Your task to perform on an android device: toggle location history Image 0: 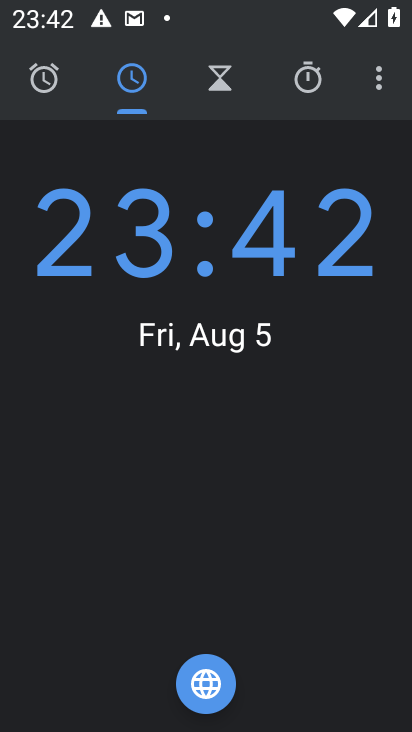
Step 0: press home button
Your task to perform on an android device: toggle location history Image 1: 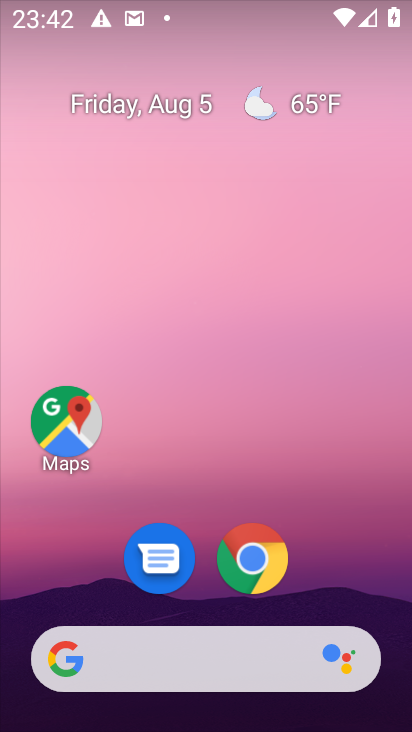
Step 1: drag from (370, 581) to (373, 233)
Your task to perform on an android device: toggle location history Image 2: 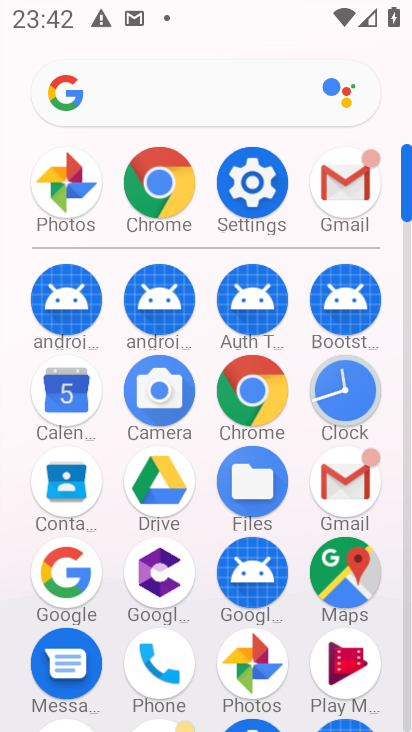
Step 2: click (254, 186)
Your task to perform on an android device: toggle location history Image 3: 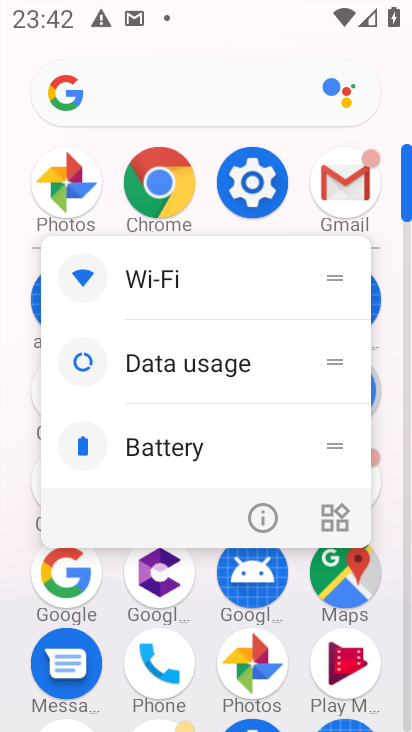
Step 3: click (253, 185)
Your task to perform on an android device: toggle location history Image 4: 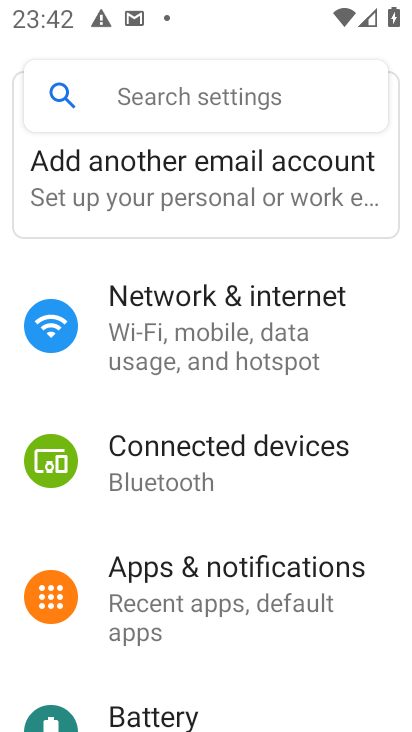
Step 4: drag from (369, 423) to (370, 321)
Your task to perform on an android device: toggle location history Image 5: 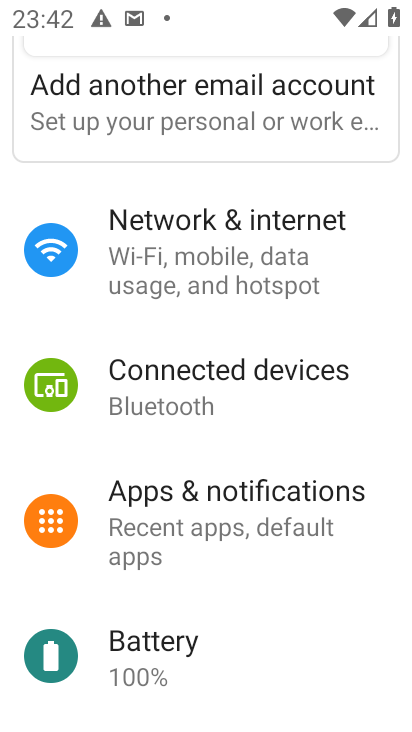
Step 5: drag from (375, 458) to (388, 320)
Your task to perform on an android device: toggle location history Image 6: 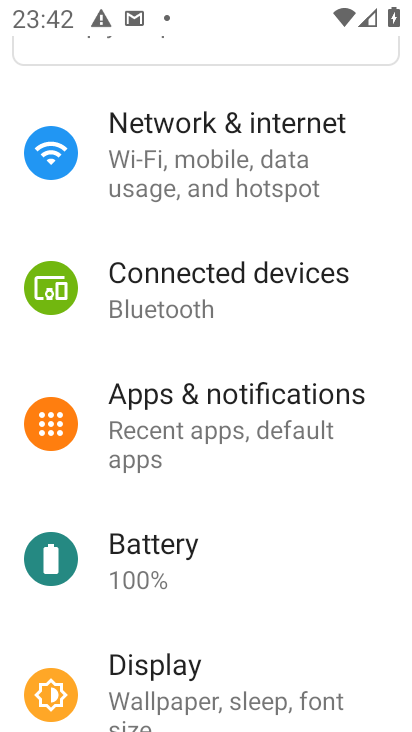
Step 6: drag from (373, 462) to (368, 334)
Your task to perform on an android device: toggle location history Image 7: 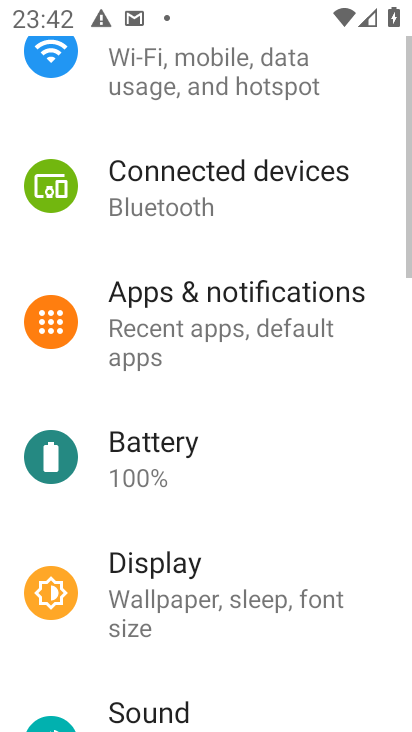
Step 7: drag from (357, 468) to (354, 358)
Your task to perform on an android device: toggle location history Image 8: 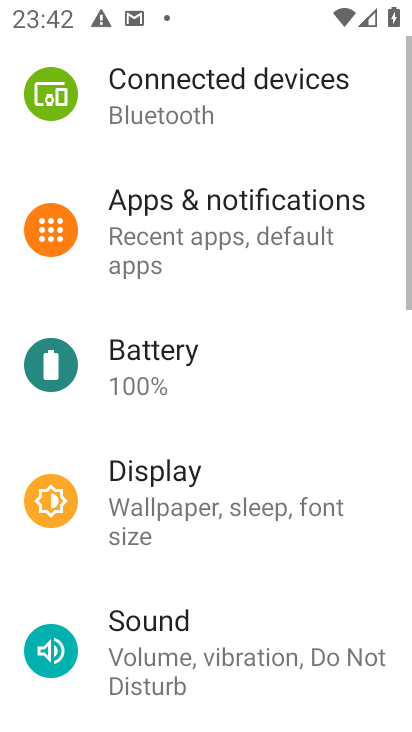
Step 8: drag from (346, 488) to (336, 349)
Your task to perform on an android device: toggle location history Image 9: 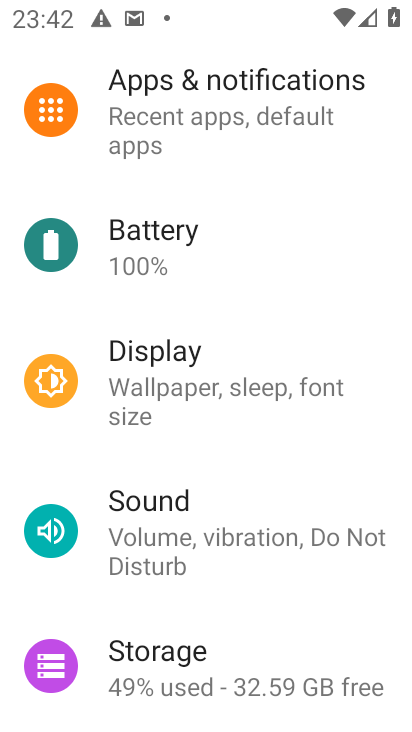
Step 9: drag from (314, 520) to (308, 361)
Your task to perform on an android device: toggle location history Image 10: 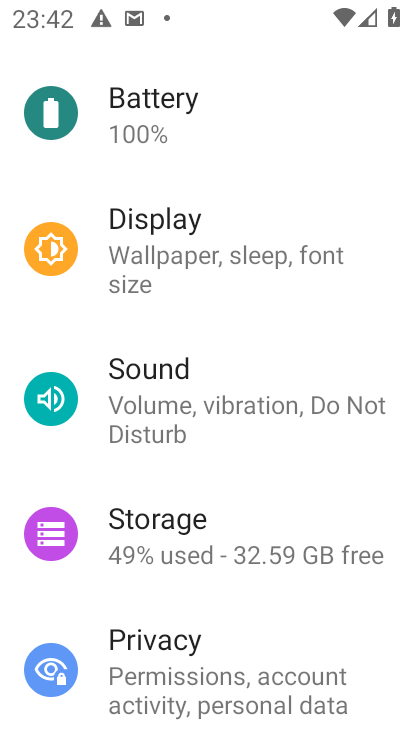
Step 10: drag from (309, 523) to (325, 318)
Your task to perform on an android device: toggle location history Image 11: 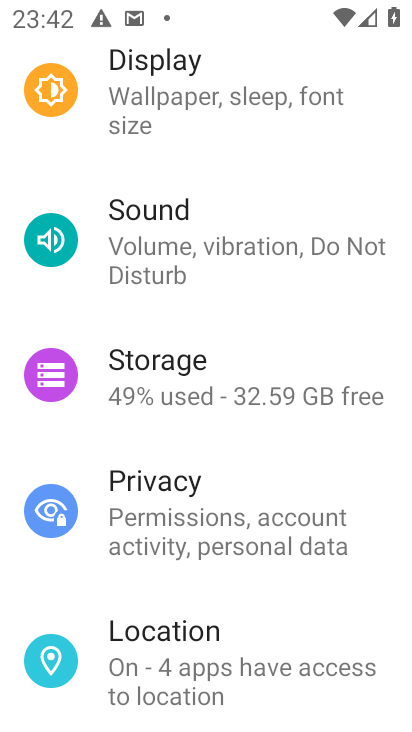
Step 11: drag from (331, 583) to (329, 414)
Your task to perform on an android device: toggle location history Image 12: 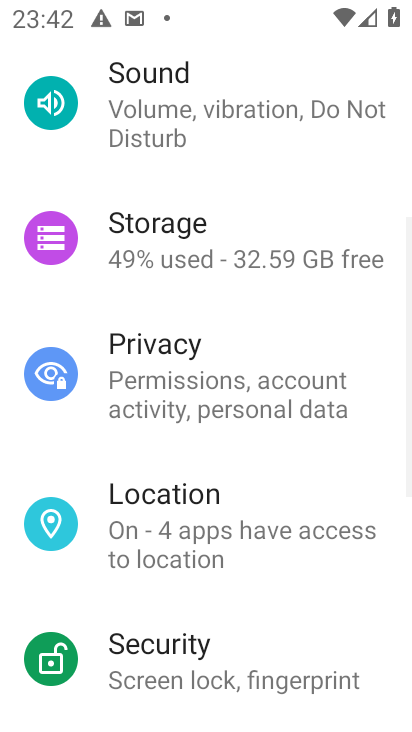
Step 12: click (300, 514)
Your task to perform on an android device: toggle location history Image 13: 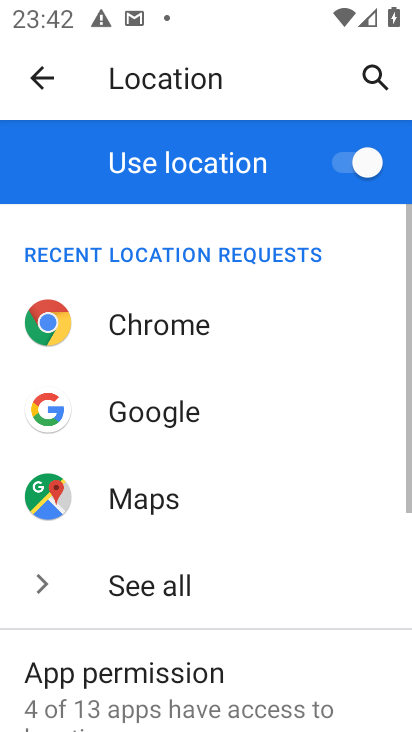
Step 13: drag from (318, 591) to (309, 437)
Your task to perform on an android device: toggle location history Image 14: 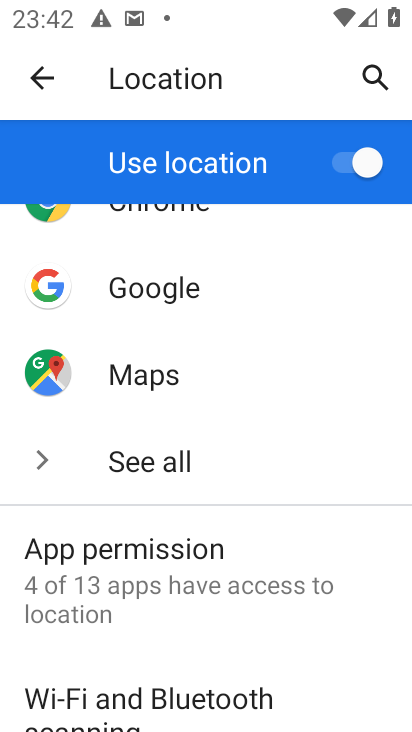
Step 14: drag from (282, 656) to (307, 385)
Your task to perform on an android device: toggle location history Image 15: 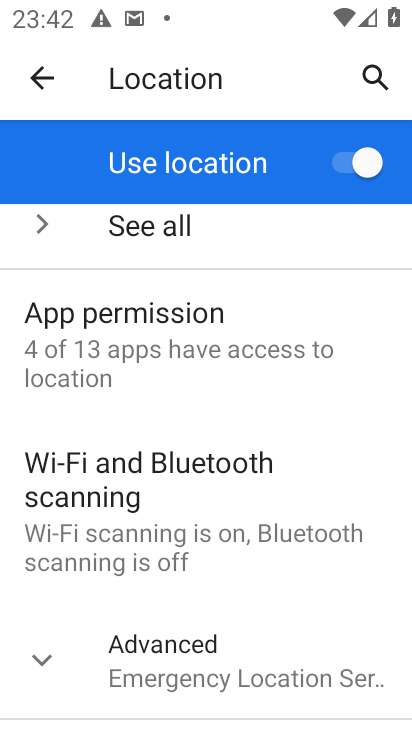
Step 15: click (290, 663)
Your task to perform on an android device: toggle location history Image 16: 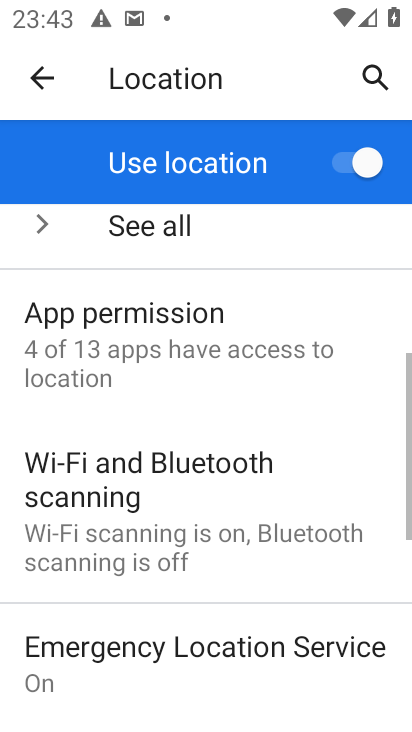
Step 16: drag from (290, 649) to (292, 497)
Your task to perform on an android device: toggle location history Image 17: 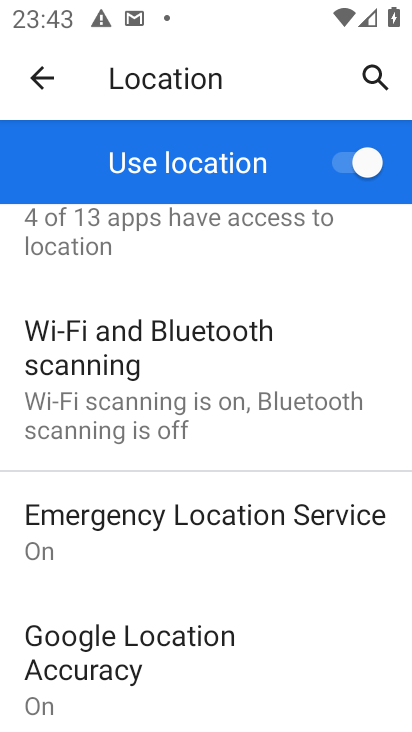
Step 17: drag from (310, 679) to (328, 467)
Your task to perform on an android device: toggle location history Image 18: 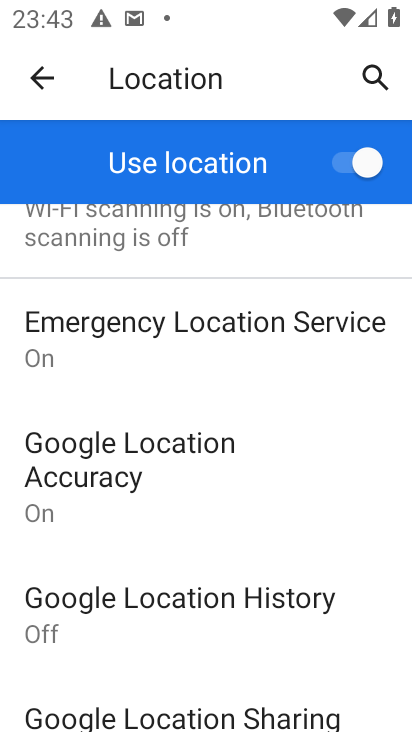
Step 18: click (297, 616)
Your task to perform on an android device: toggle location history Image 19: 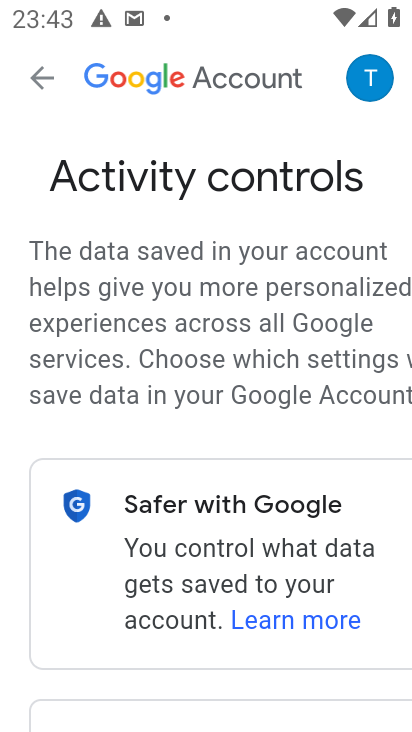
Step 19: drag from (286, 536) to (285, 330)
Your task to perform on an android device: toggle location history Image 20: 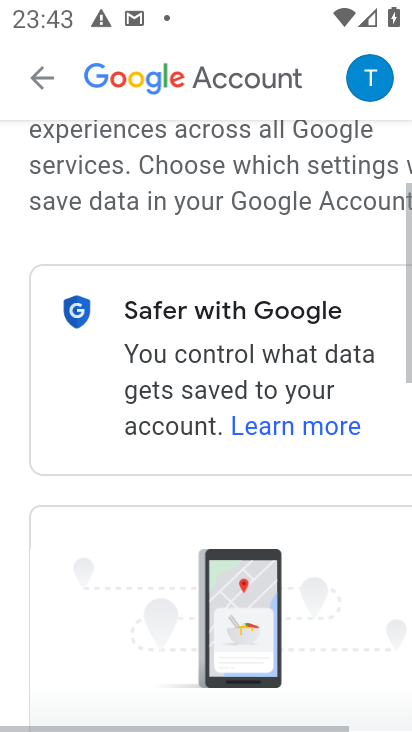
Step 20: drag from (173, 530) to (189, 415)
Your task to perform on an android device: toggle location history Image 21: 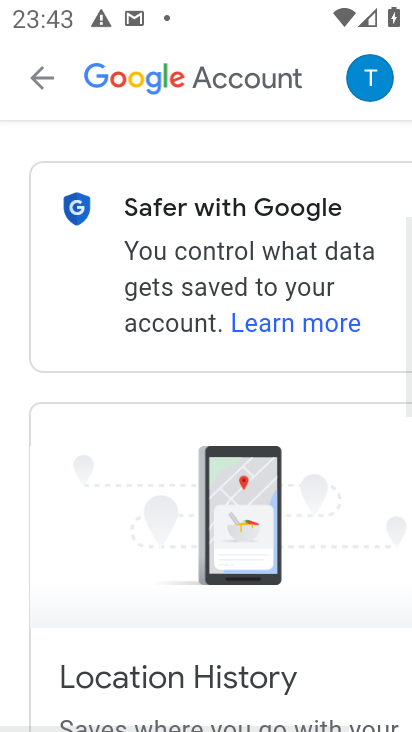
Step 21: drag from (175, 641) to (179, 437)
Your task to perform on an android device: toggle location history Image 22: 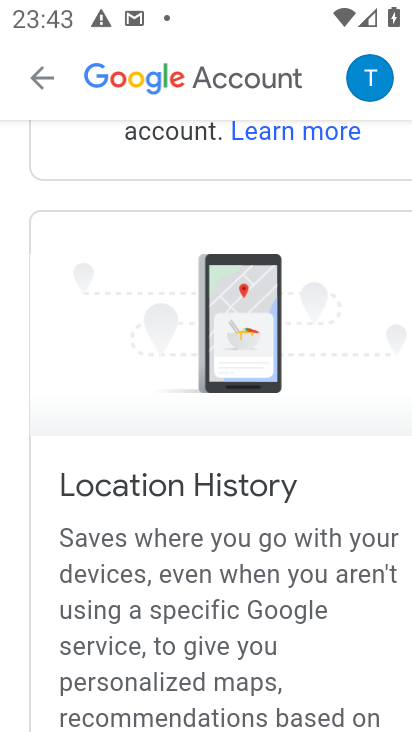
Step 22: drag from (204, 540) to (205, 396)
Your task to perform on an android device: toggle location history Image 23: 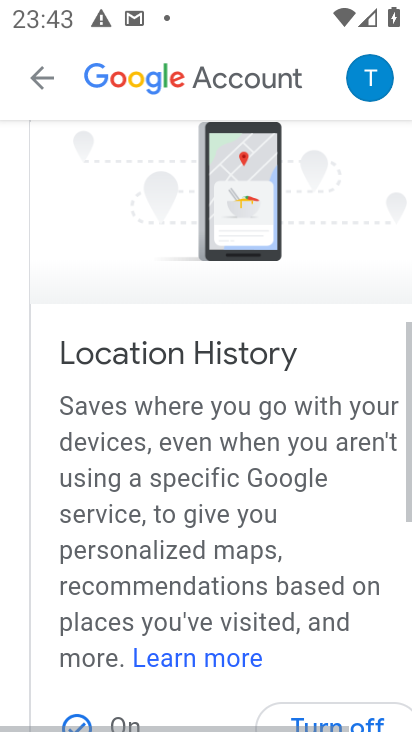
Step 23: drag from (204, 584) to (209, 443)
Your task to perform on an android device: toggle location history Image 24: 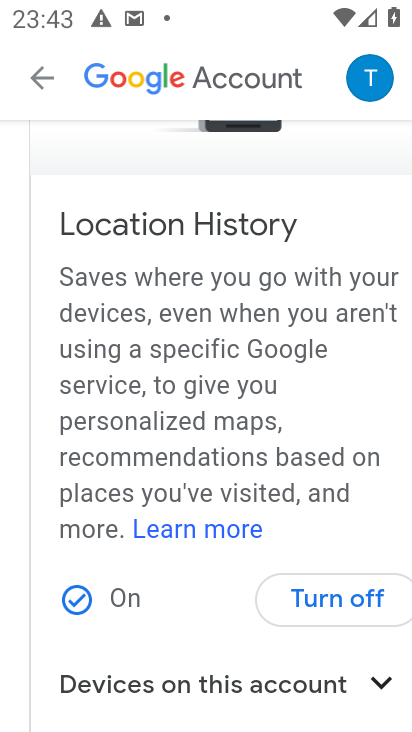
Step 24: drag from (198, 614) to (203, 450)
Your task to perform on an android device: toggle location history Image 25: 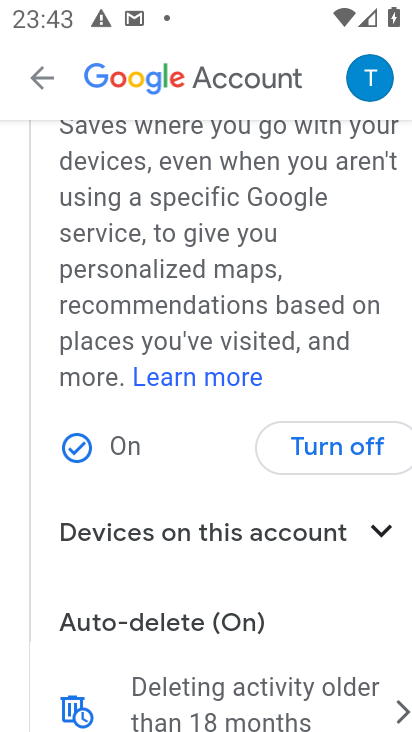
Step 25: click (318, 450)
Your task to perform on an android device: toggle location history Image 26: 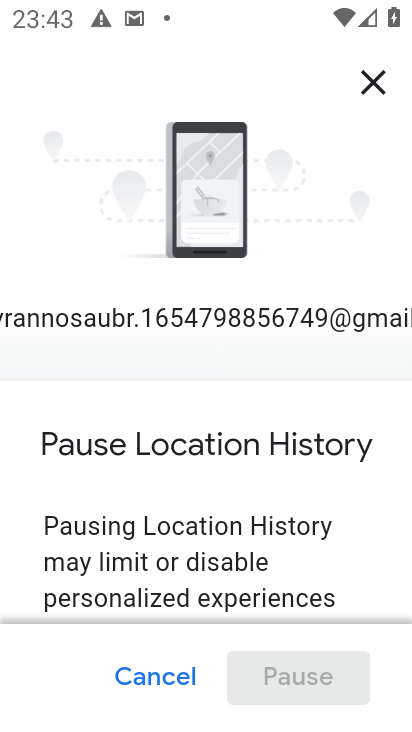
Step 26: drag from (243, 493) to (271, 306)
Your task to perform on an android device: toggle location history Image 27: 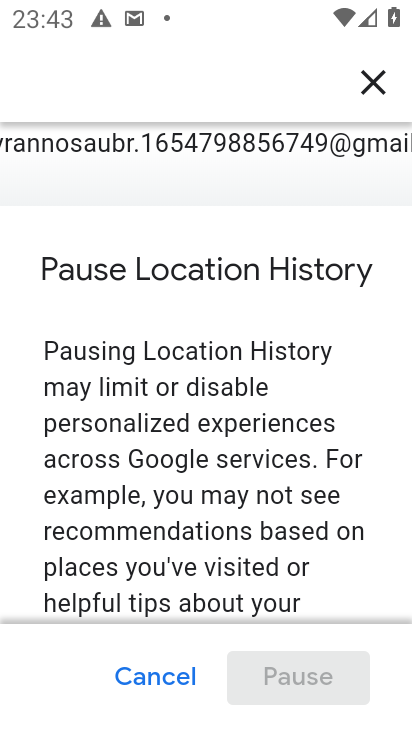
Step 27: drag from (269, 433) to (276, 354)
Your task to perform on an android device: toggle location history Image 28: 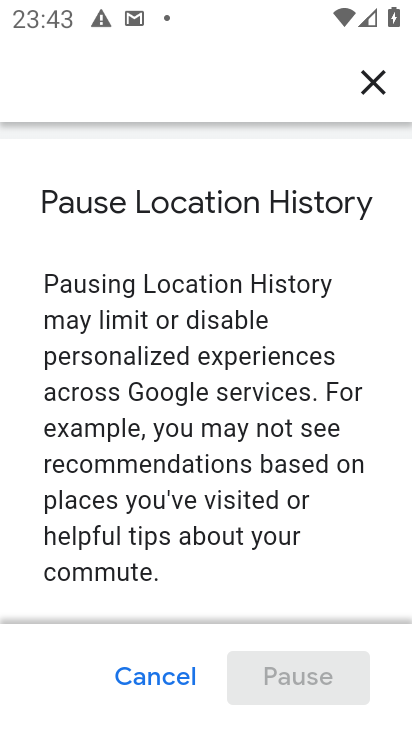
Step 28: drag from (248, 568) to (248, 334)
Your task to perform on an android device: toggle location history Image 29: 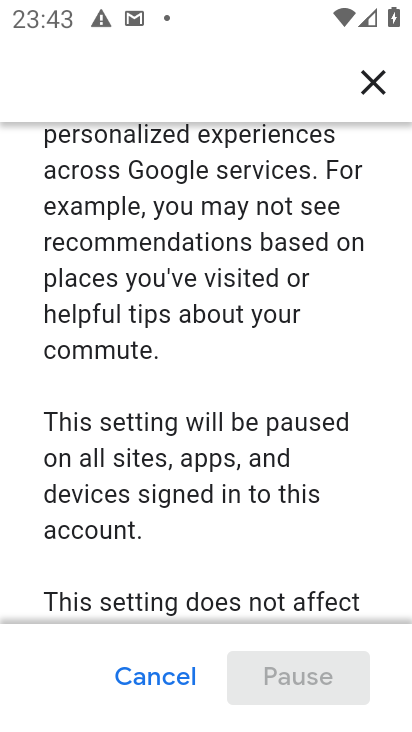
Step 29: drag from (256, 533) to (264, 342)
Your task to perform on an android device: toggle location history Image 30: 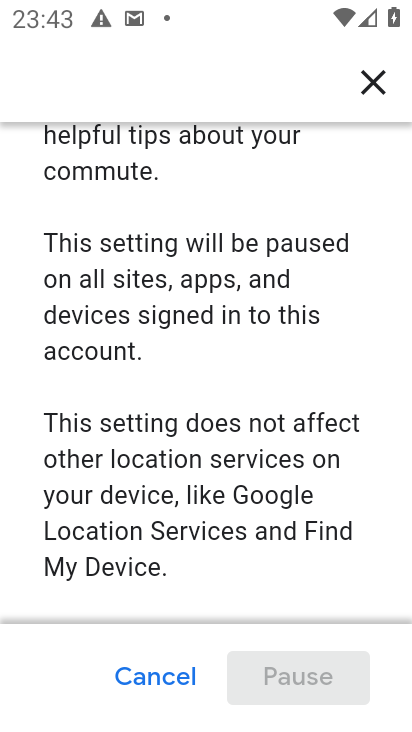
Step 30: drag from (237, 549) to (241, 330)
Your task to perform on an android device: toggle location history Image 31: 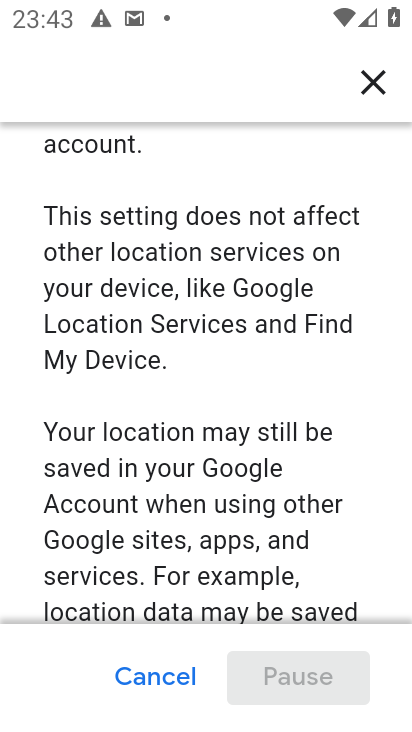
Step 31: drag from (234, 547) to (249, 346)
Your task to perform on an android device: toggle location history Image 32: 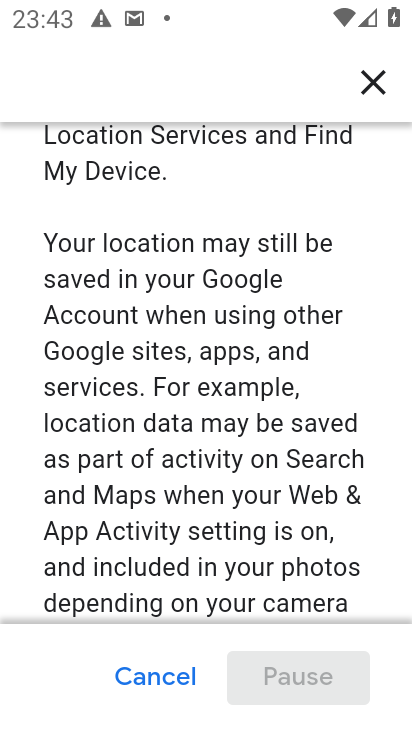
Step 32: drag from (249, 554) to (247, 373)
Your task to perform on an android device: toggle location history Image 33: 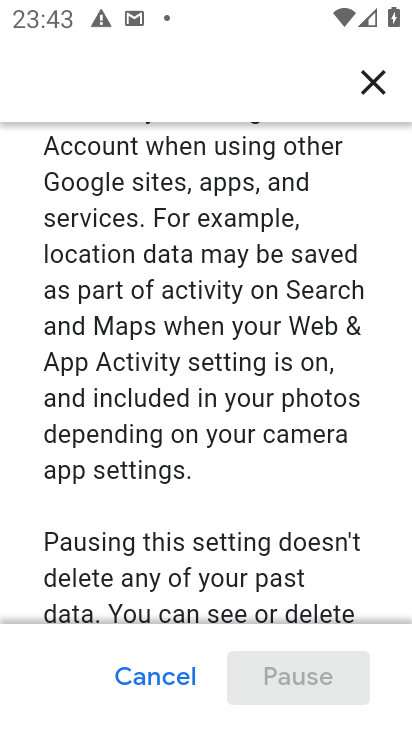
Step 33: drag from (272, 565) to (259, 333)
Your task to perform on an android device: toggle location history Image 34: 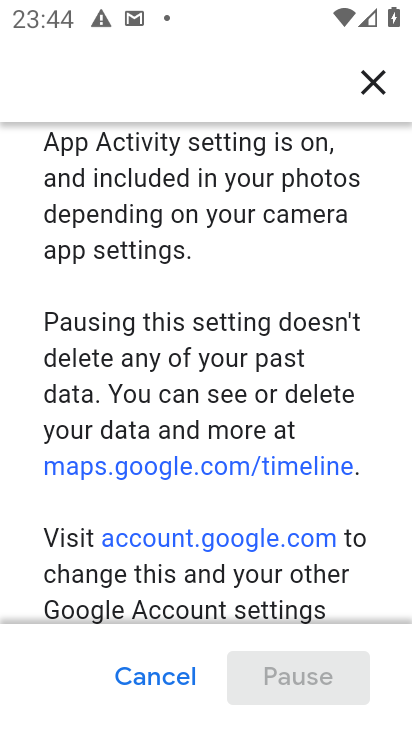
Step 34: drag from (247, 583) to (258, 372)
Your task to perform on an android device: toggle location history Image 35: 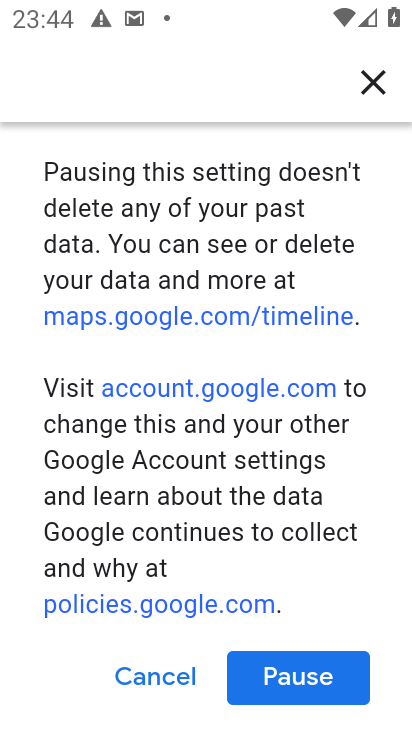
Step 35: click (299, 688)
Your task to perform on an android device: toggle location history Image 36: 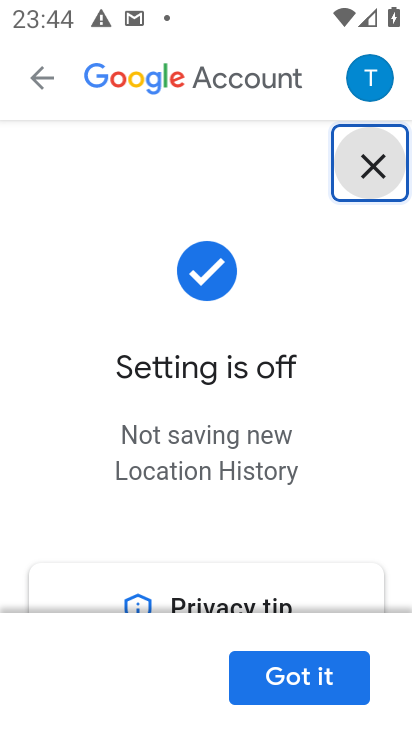
Step 36: task complete